Your task to perform on an android device: Open internet settings Image 0: 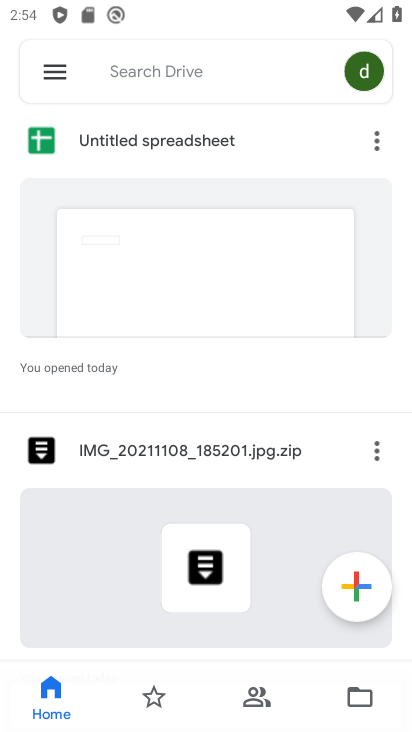
Step 0: press home button
Your task to perform on an android device: Open internet settings Image 1: 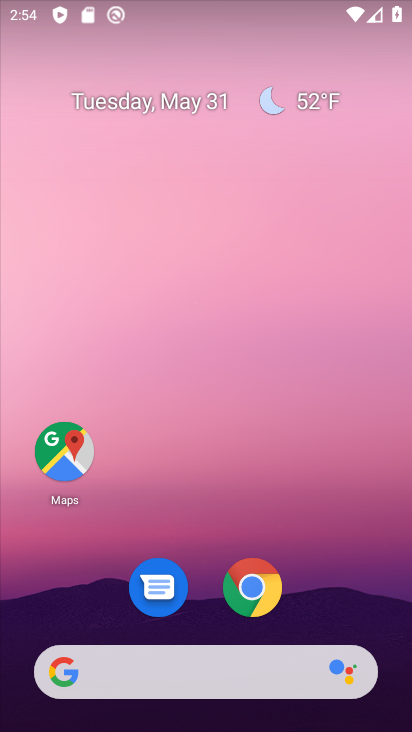
Step 1: drag from (358, 622) to (241, 160)
Your task to perform on an android device: Open internet settings Image 2: 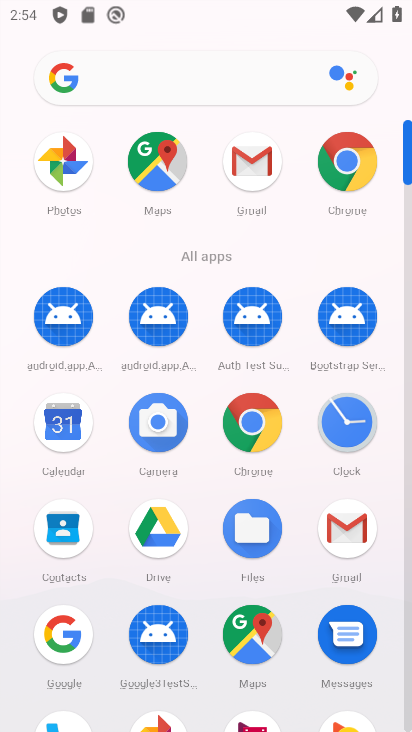
Step 2: click (404, 689)
Your task to perform on an android device: Open internet settings Image 3: 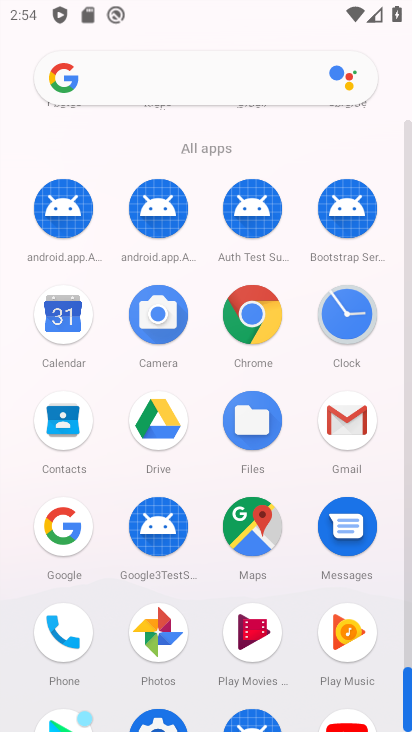
Step 3: click (161, 722)
Your task to perform on an android device: Open internet settings Image 4: 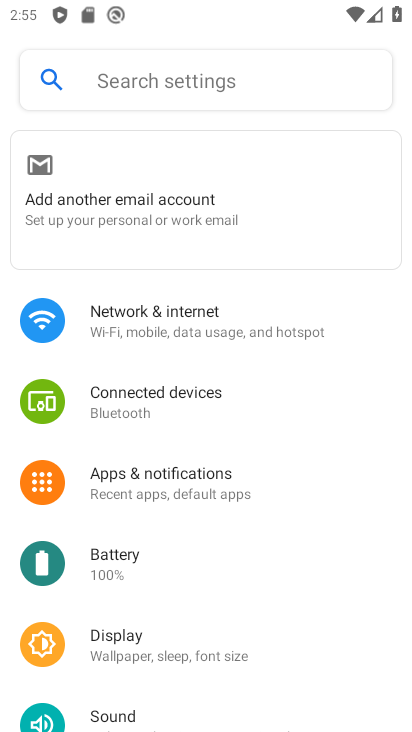
Step 4: click (176, 314)
Your task to perform on an android device: Open internet settings Image 5: 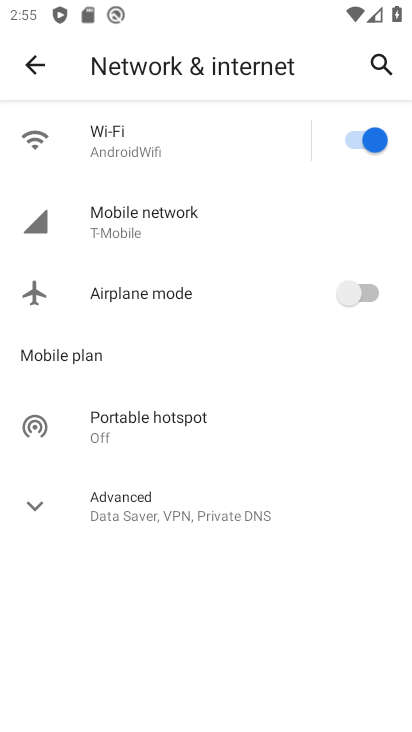
Step 5: task complete